Your task to perform on an android device: Open Google Image 0: 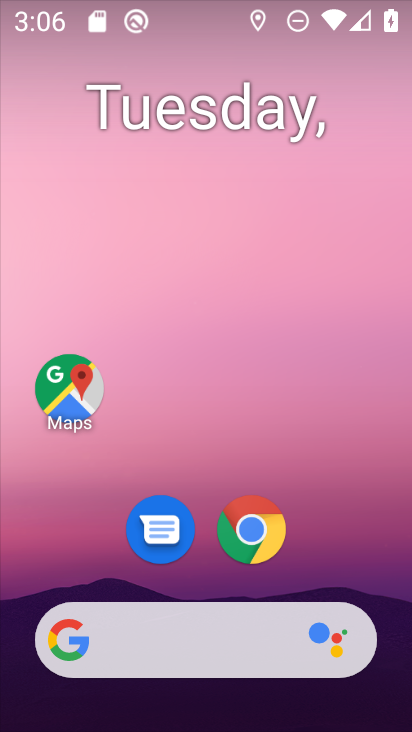
Step 0: drag from (192, 551) to (283, 45)
Your task to perform on an android device: Open Google Image 1: 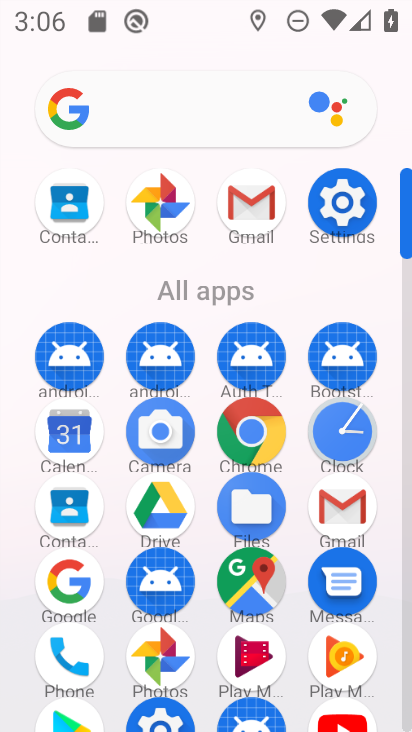
Step 1: click (69, 580)
Your task to perform on an android device: Open Google Image 2: 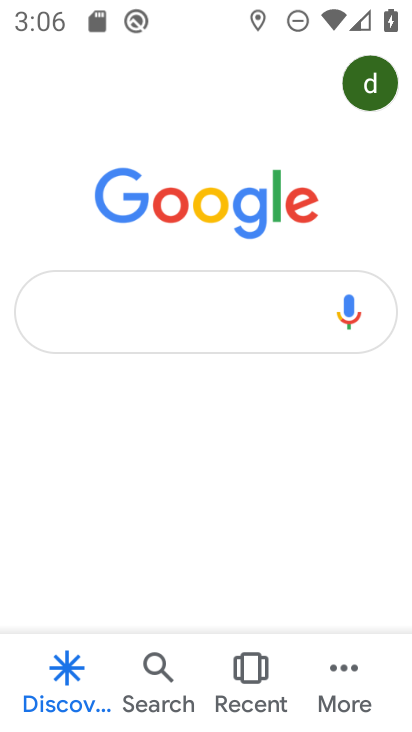
Step 2: task complete